Your task to perform on an android device: turn on data saver in the chrome app Image 0: 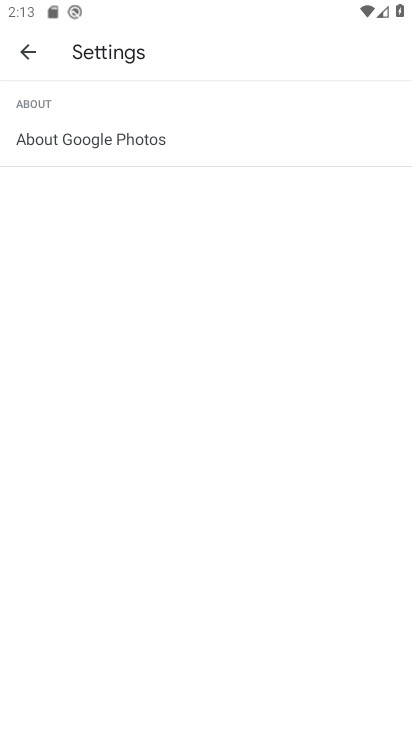
Step 0: press back button
Your task to perform on an android device: turn on data saver in the chrome app Image 1: 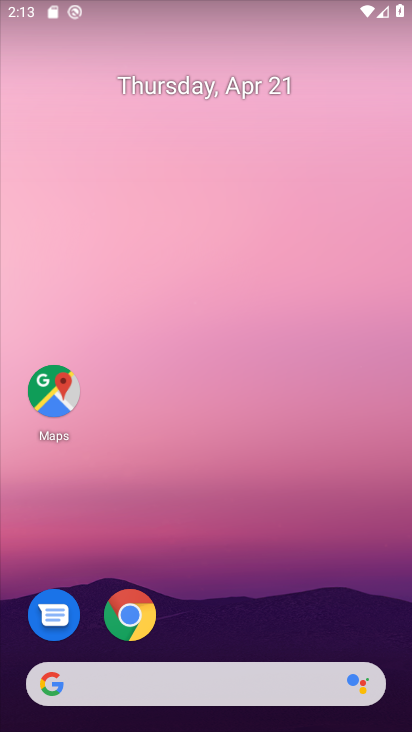
Step 1: click (133, 630)
Your task to perform on an android device: turn on data saver in the chrome app Image 2: 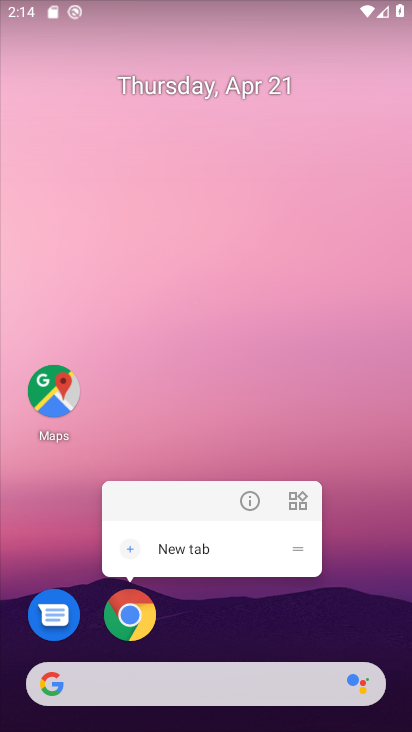
Step 2: click (132, 617)
Your task to perform on an android device: turn on data saver in the chrome app Image 3: 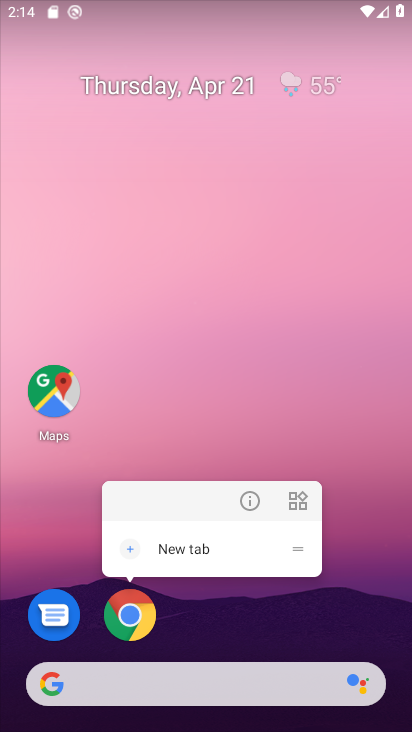
Step 3: click (130, 621)
Your task to perform on an android device: turn on data saver in the chrome app Image 4: 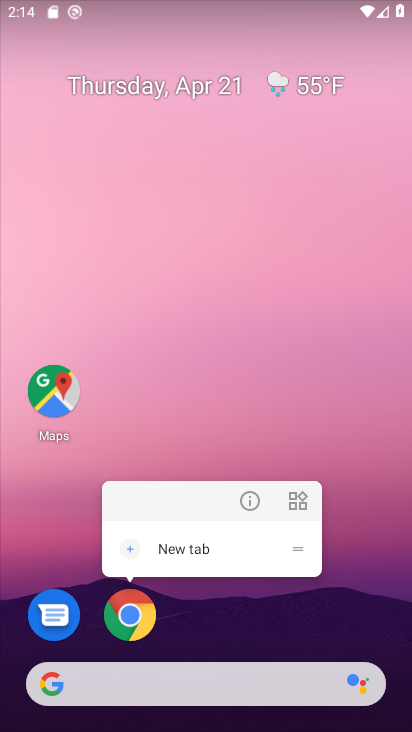
Step 4: click (133, 622)
Your task to perform on an android device: turn on data saver in the chrome app Image 5: 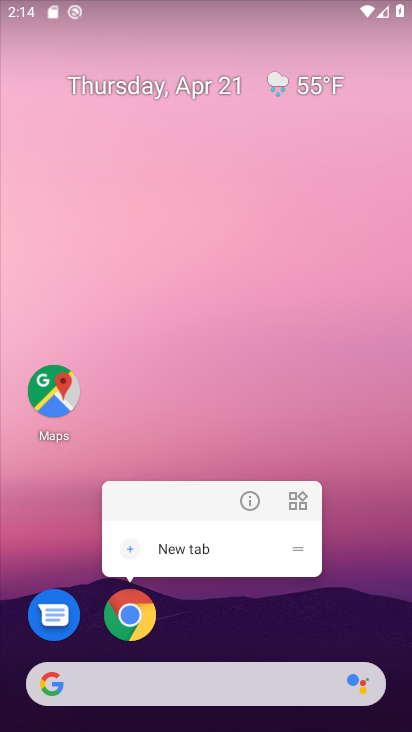
Step 5: click (129, 619)
Your task to perform on an android device: turn on data saver in the chrome app Image 6: 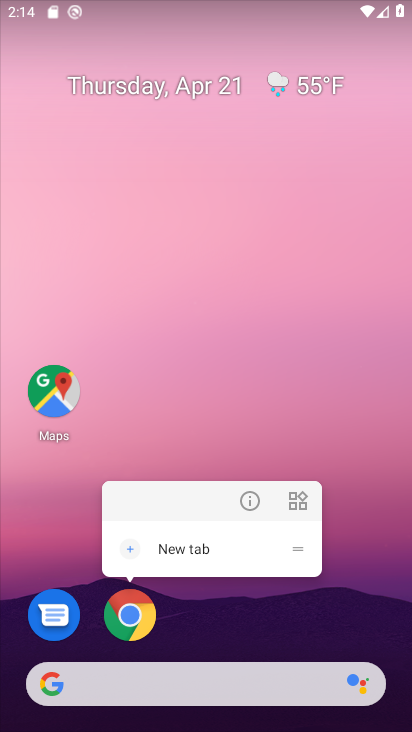
Step 6: click (136, 618)
Your task to perform on an android device: turn on data saver in the chrome app Image 7: 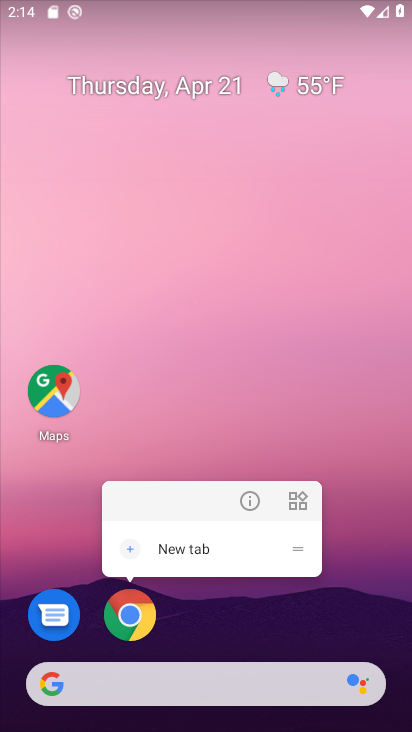
Step 7: click (135, 618)
Your task to perform on an android device: turn on data saver in the chrome app Image 8: 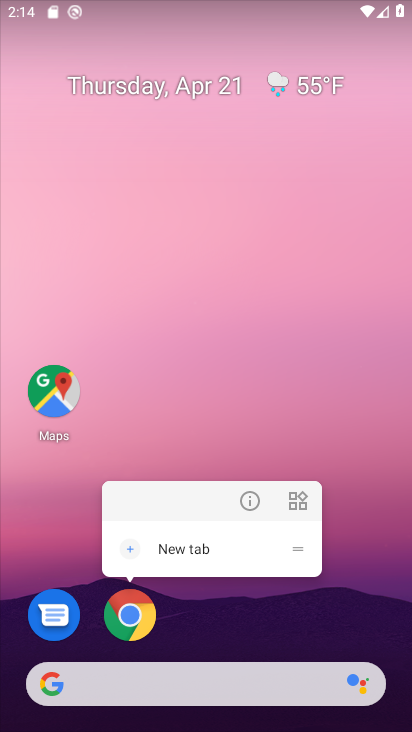
Step 8: click (134, 617)
Your task to perform on an android device: turn on data saver in the chrome app Image 9: 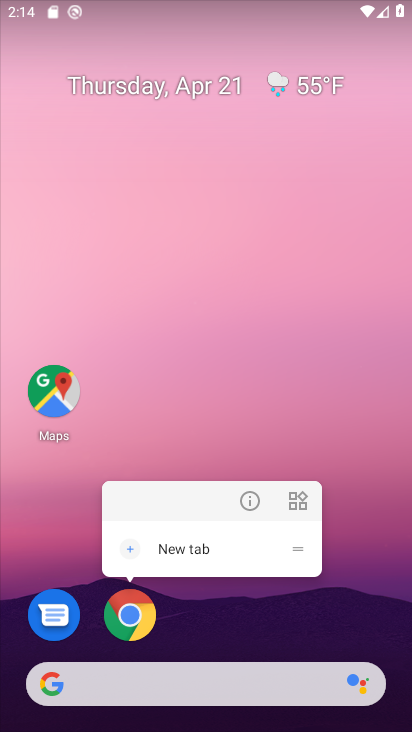
Step 9: click (129, 616)
Your task to perform on an android device: turn on data saver in the chrome app Image 10: 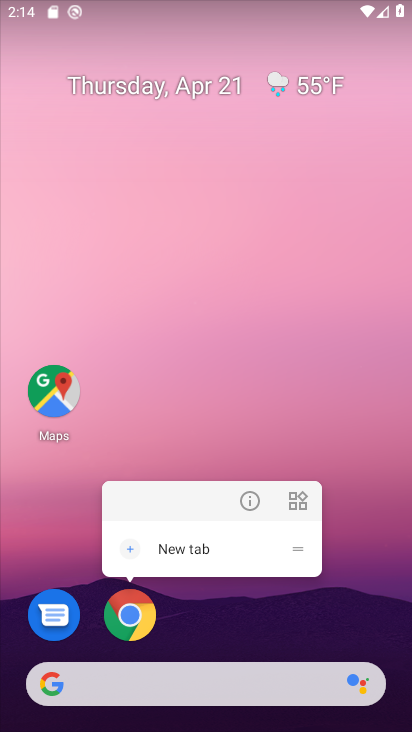
Step 10: click (123, 620)
Your task to perform on an android device: turn on data saver in the chrome app Image 11: 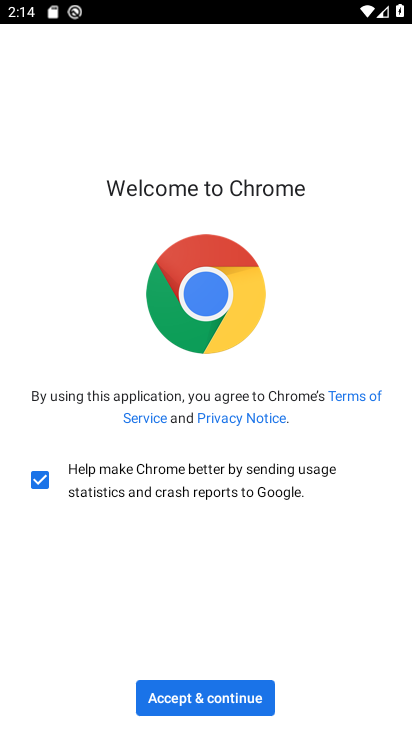
Step 11: click (217, 698)
Your task to perform on an android device: turn on data saver in the chrome app Image 12: 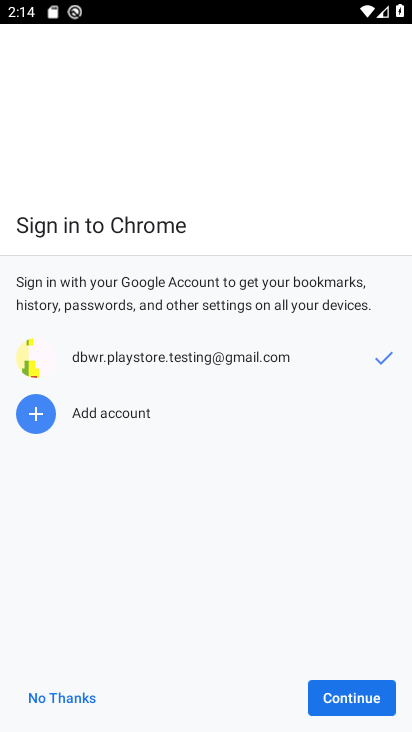
Step 12: click (337, 700)
Your task to perform on an android device: turn on data saver in the chrome app Image 13: 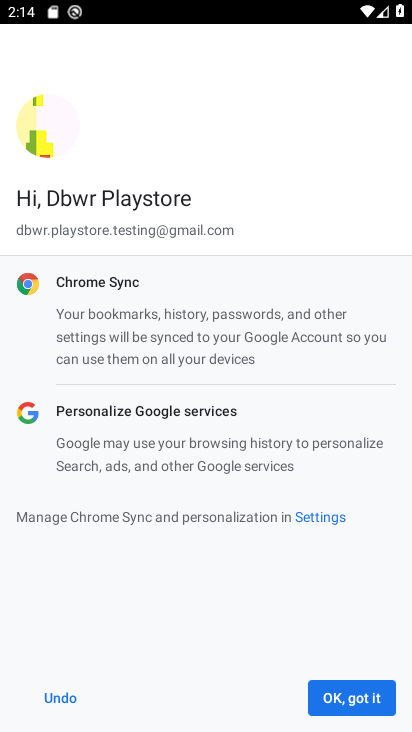
Step 13: click (343, 700)
Your task to perform on an android device: turn on data saver in the chrome app Image 14: 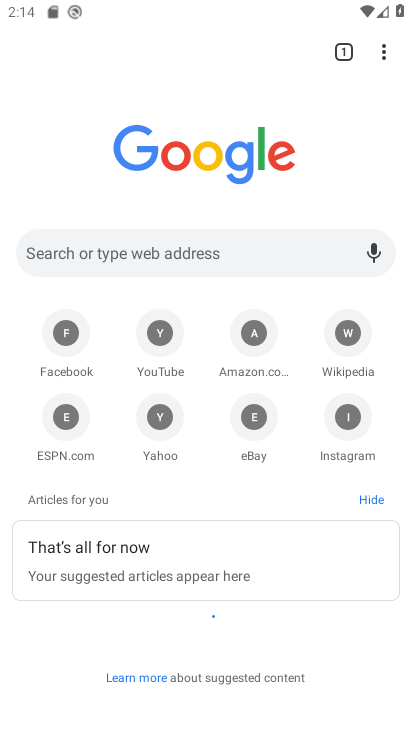
Step 14: drag from (392, 61) to (265, 444)
Your task to perform on an android device: turn on data saver in the chrome app Image 15: 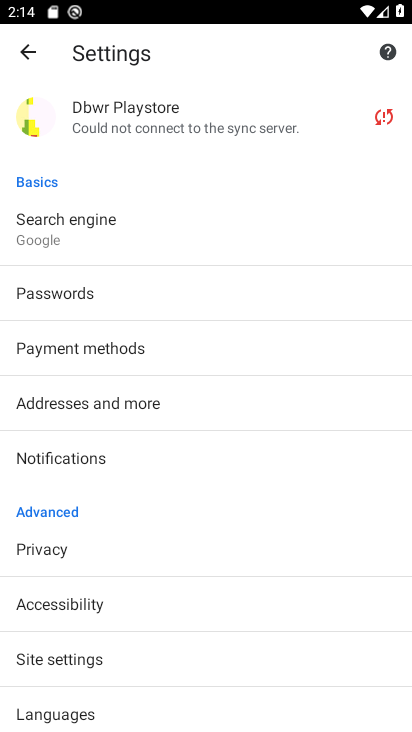
Step 15: drag from (196, 610) to (280, 343)
Your task to perform on an android device: turn on data saver in the chrome app Image 16: 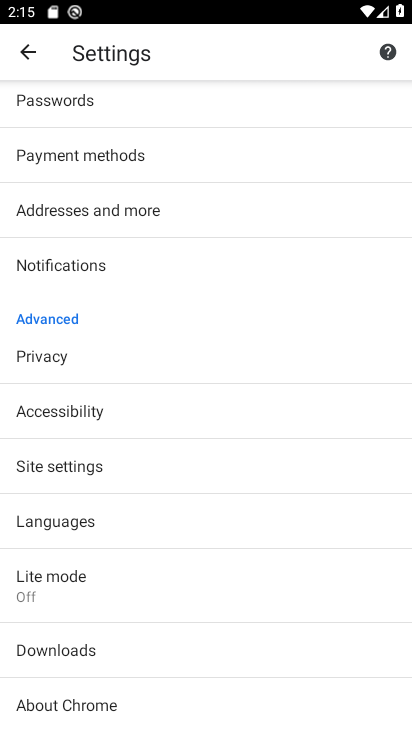
Step 16: click (67, 591)
Your task to perform on an android device: turn on data saver in the chrome app Image 17: 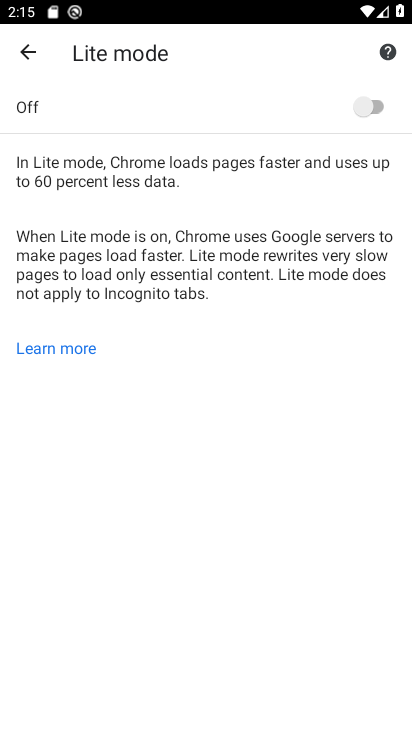
Step 17: click (387, 102)
Your task to perform on an android device: turn on data saver in the chrome app Image 18: 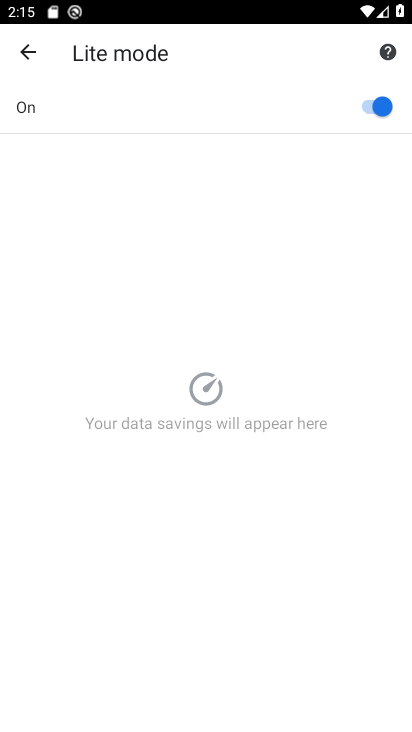
Step 18: task complete